Your task to perform on an android device: open chrome privacy settings Image 0: 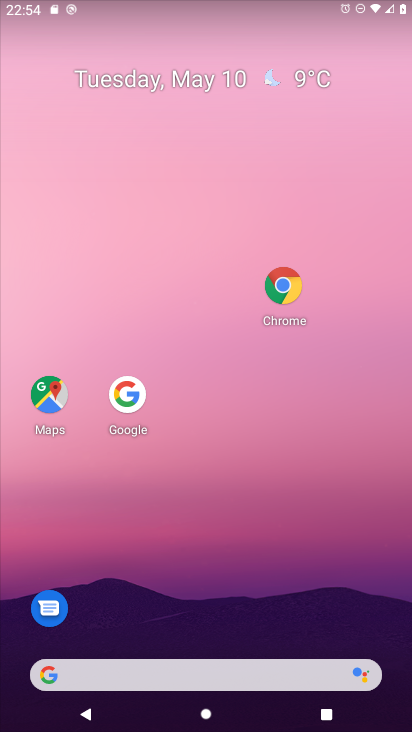
Step 0: click (279, 299)
Your task to perform on an android device: open chrome privacy settings Image 1: 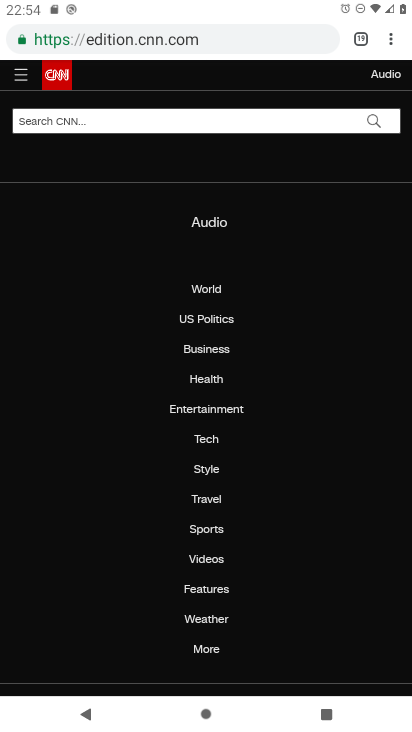
Step 1: drag from (387, 42) to (267, 471)
Your task to perform on an android device: open chrome privacy settings Image 2: 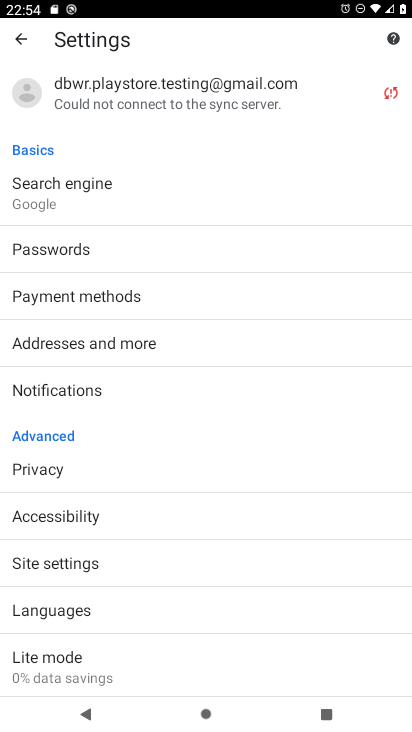
Step 2: click (48, 470)
Your task to perform on an android device: open chrome privacy settings Image 3: 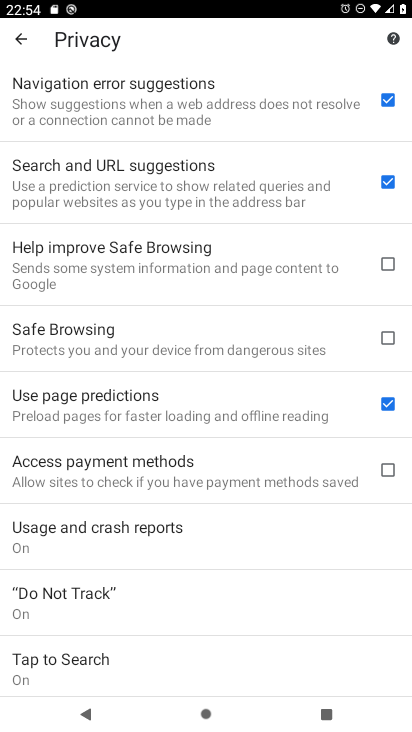
Step 3: task complete